Your task to perform on an android device: Go to display settings Image 0: 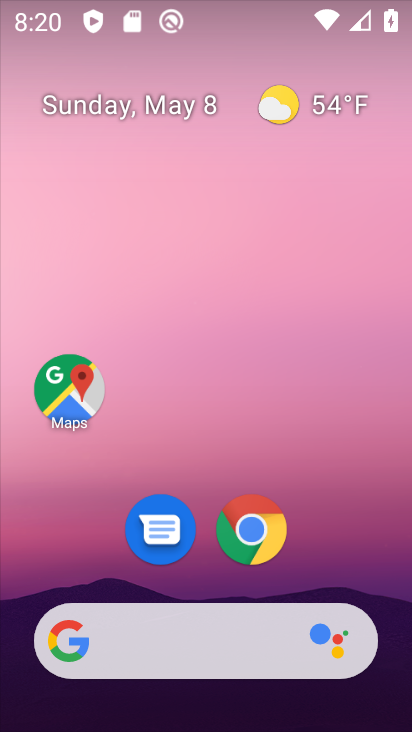
Step 0: drag from (375, 569) to (381, 153)
Your task to perform on an android device: Go to display settings Image 1: 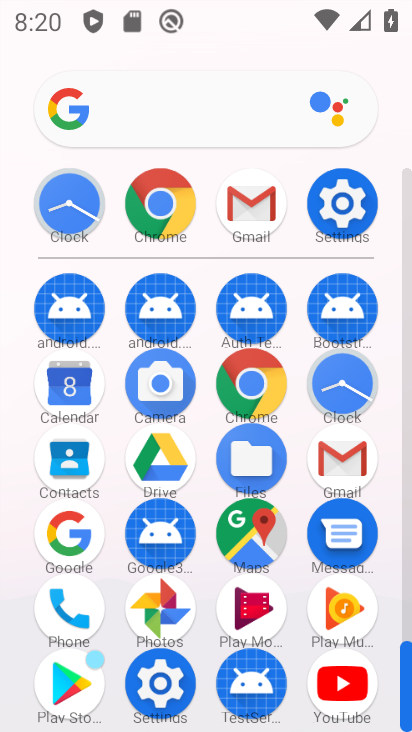
Step 1: click (337, 199)
Your task to perform on an android device: Go to display settings Image 2: 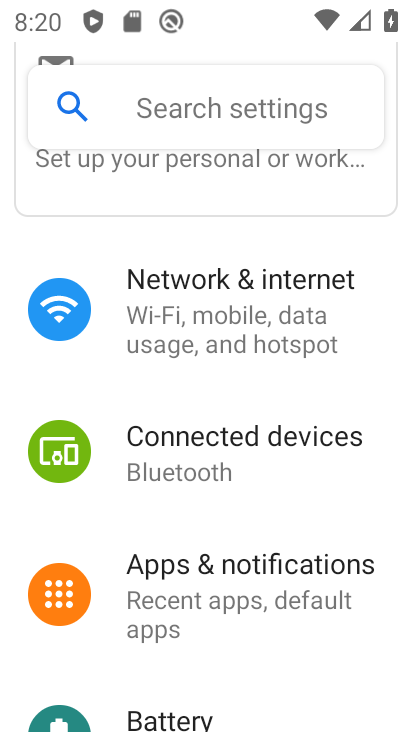
Step 2: drag from (244, 643) to (296, 344)
Your task to perform on an android device: Go to display settings Image 3: 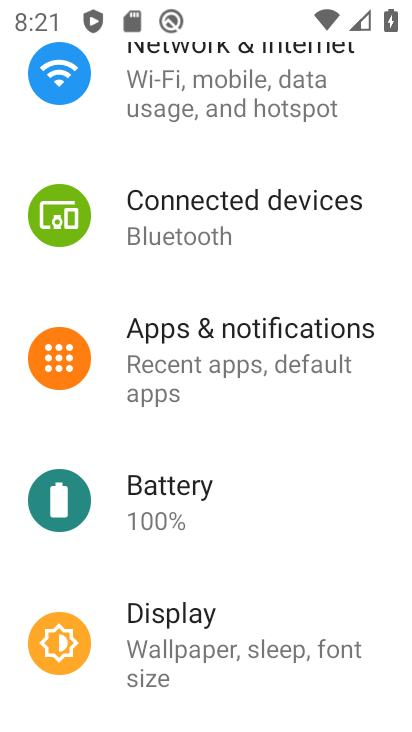
Step 3: click (226, 628)
Your task to perform on an android device: Go to display settings Image 4: 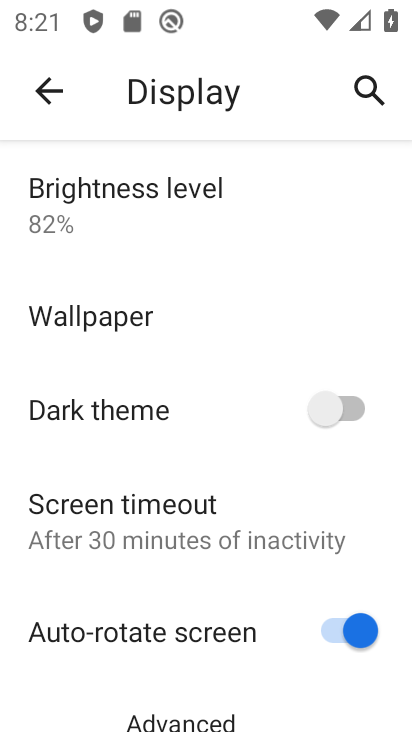
Step 4: drag from (142, 624) to (172, 376)
Your task to perform on an android device: Go to display settings Image 5: 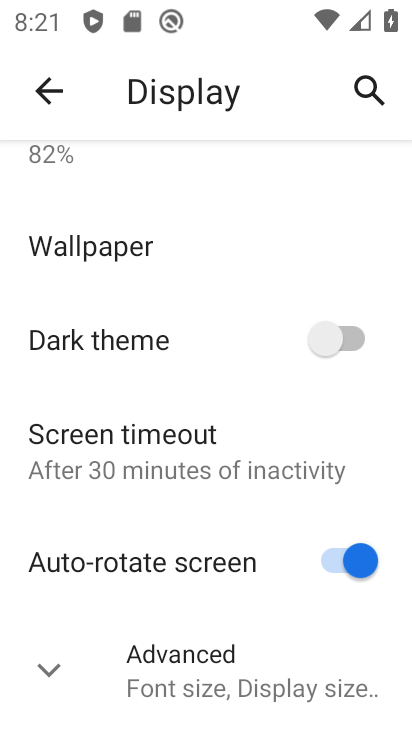
Step 5: click (159, 672)
Your task to perform on an android device: Go to display settings Image 6: 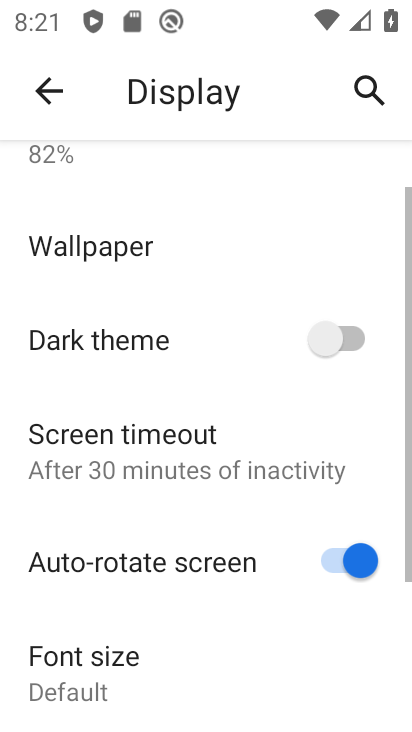
Step 6: drag from (161, 686) to (216, 414)
Your task to perform on an android device: Go to display settings Image 7: 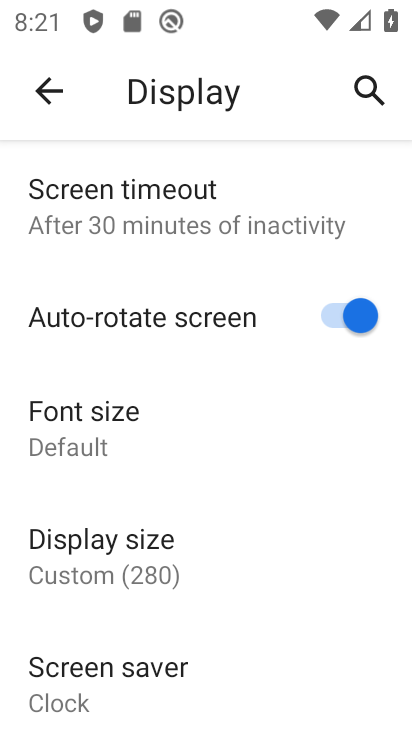
Step 7: drag from (231, 634) to (215, 399)
Your task to perform on an android device: Go to display settings Image 8: 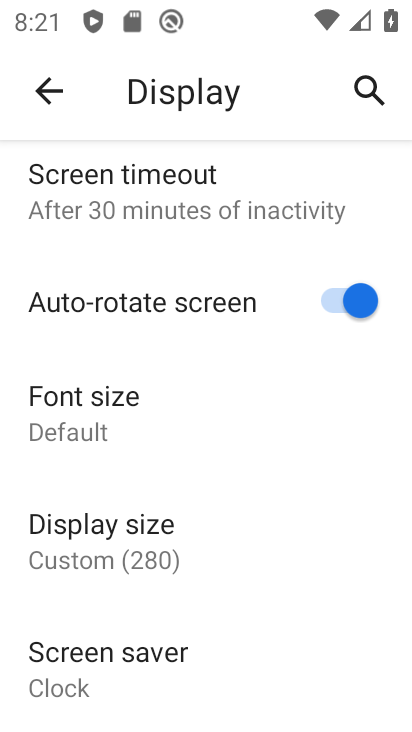
Step 8: click (124, 432)
Your task to perform on an android device: Go to display settings Image 9: 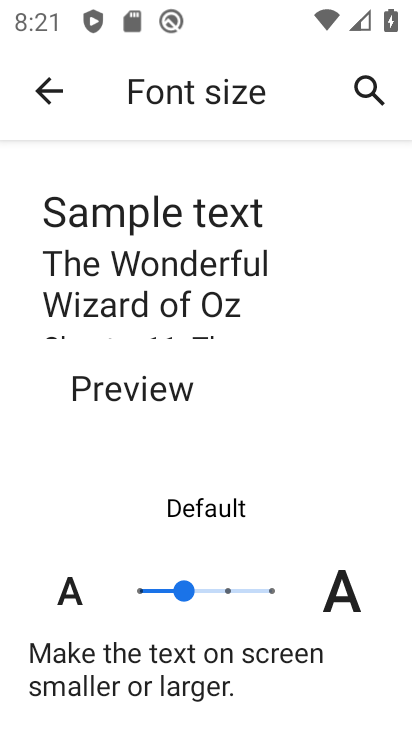
Step 9: task complete